Your task to perform on an android device: Open calendar and show me the fourth week of next month Image 0: 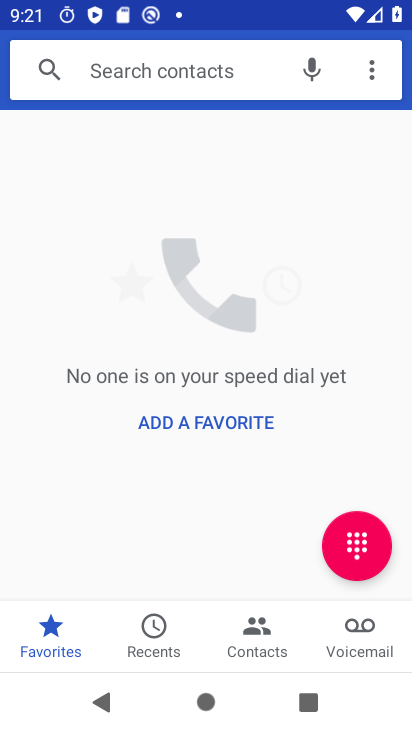
Step 0: press home button
Your task to perform on an android device: Open calendar and show me the fourth week of next month Image 1: 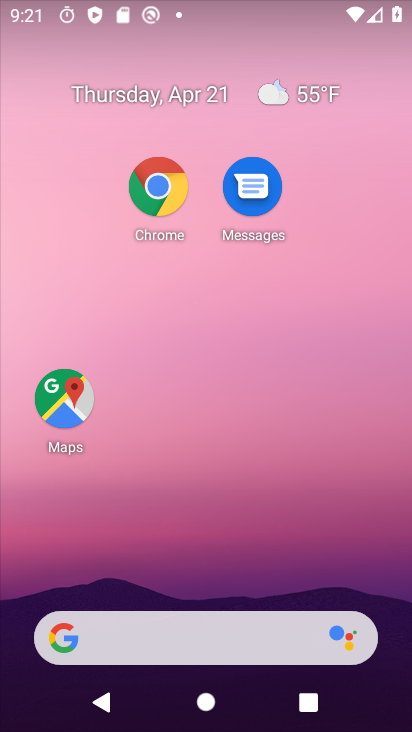
Step 1: drag from (197, 597) to (228, 87)
Your task to perform on an android device: Open calendar and show me the fourth week of next month Image 2: 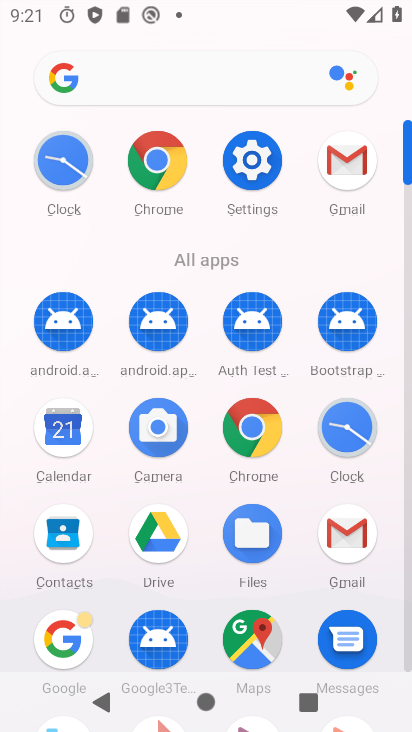
Step 2: click (67, 442)
Your task to perform on an android device: Open calendar and show me the fourth week of next month Image 3: 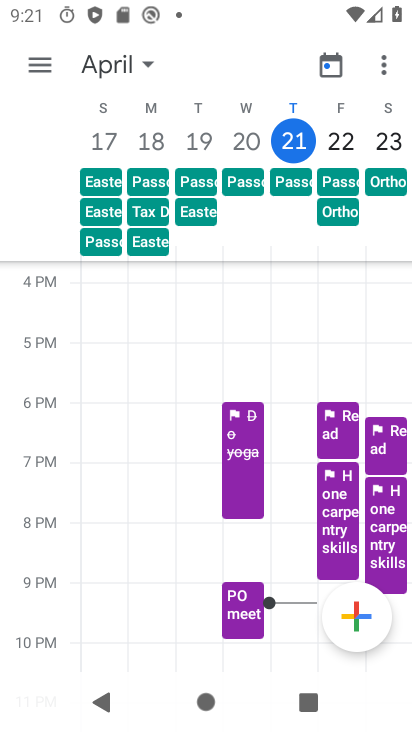
Step 3: click (152, 62)
Your task to perform on an android device: Open calendar and show me the fourth week of next month Image 4: 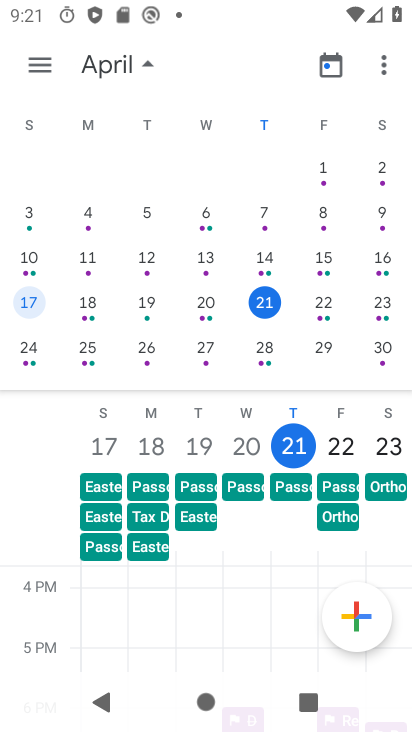
Step 4: drag from (342, 338) to (1, 290)
Your task to perform on an android device: Open calendar and show me the fourth week of next month Image 5: 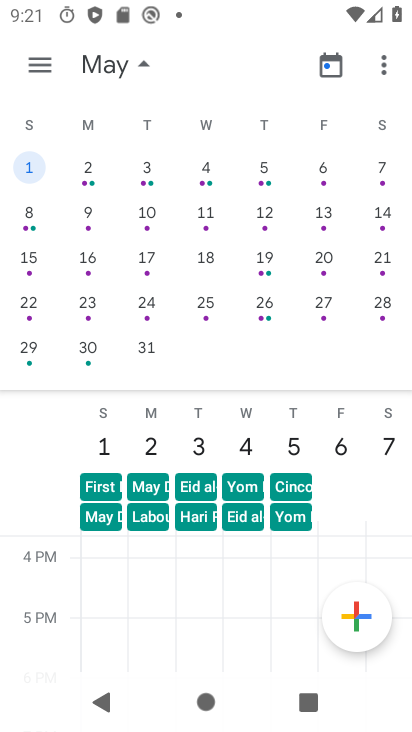
Step 5: click (36, 61)
Your task to perform on an android device: Open calendar and show me the fourth week of next month Image 6: 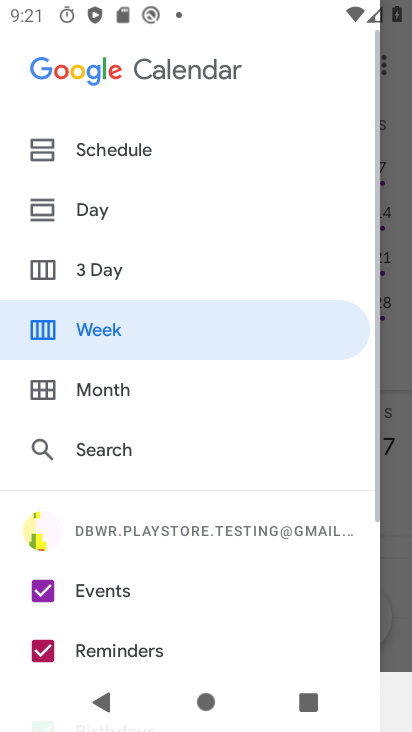
Step 6: click (119, 330)
Your task to perform on an android device: Open calendar and show me the fourth week of next month Image 7: 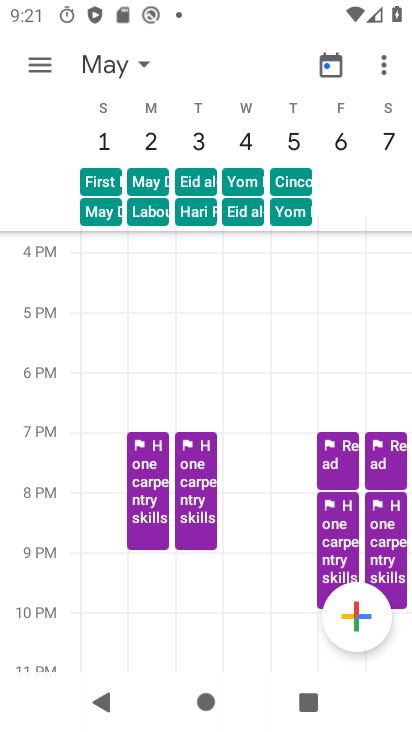
Step 7: task complete